Your task to perform on an android device: turn on sleep mode Image 0: 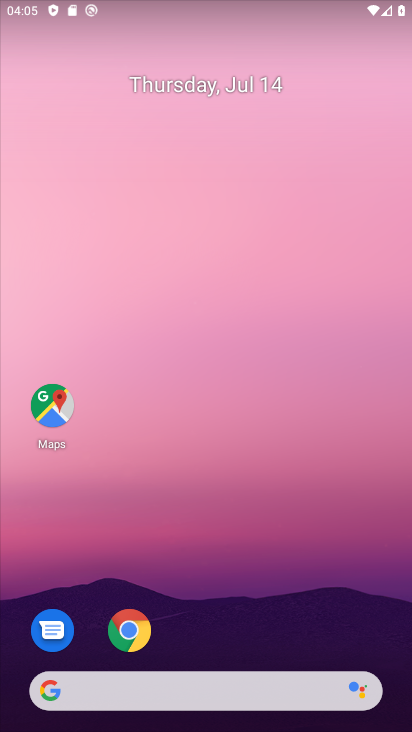
Step 0: press home button
Your task to perform on an android device: turn on sleep mode Image 1: 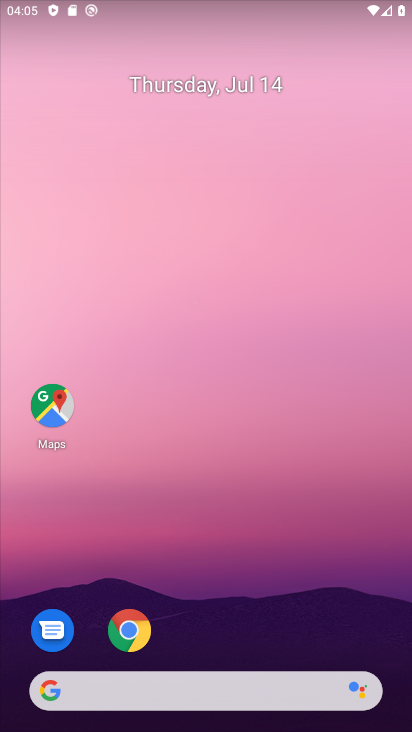
Step 1: press home button
Your task to perform on an android device: turn on sleep mode Image 2: 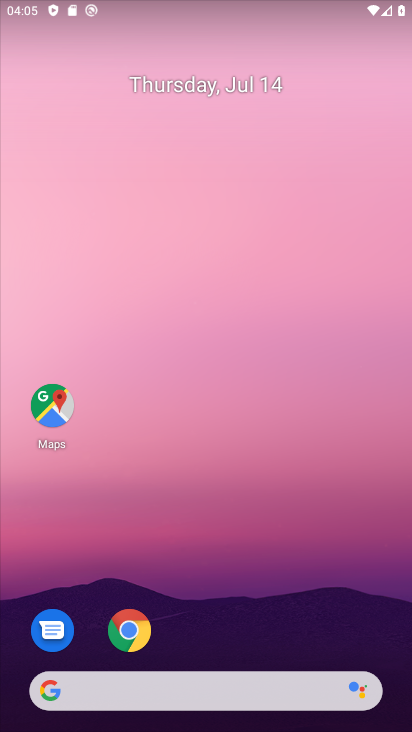
Step 2: drag from (231, 654) to (234, 0)
Your task to perform on an android device: turn on sleep mode Image 3: 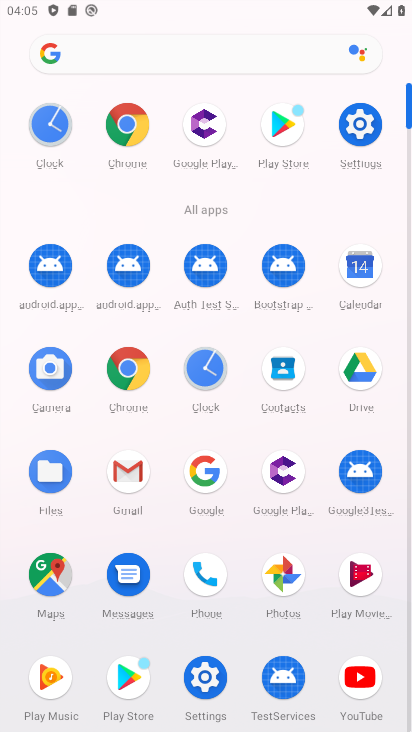
Step 3: click (358, 118)
Your task to perform on an android device: turn on sleep mode Image 4: 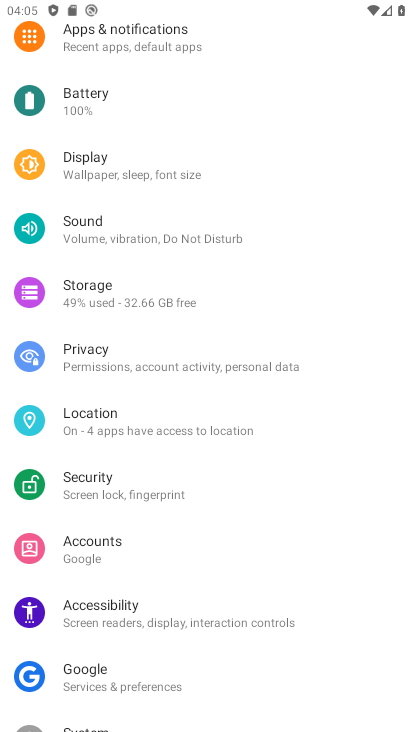
Step 4: click (104, 150)
Your task to perform on an android device: turn on sleep mode Image 5: 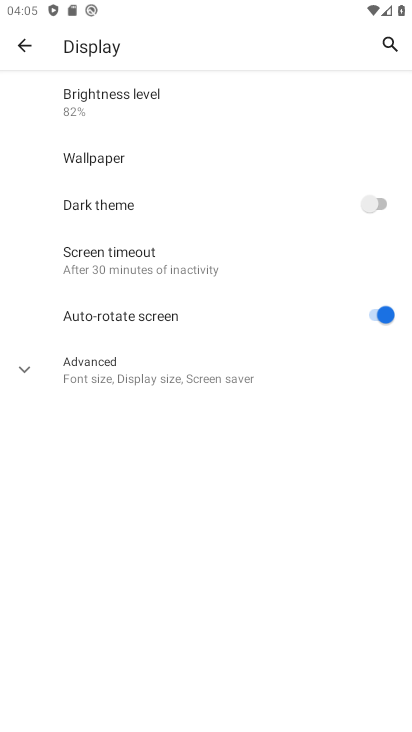
Step 5: click (27, 363)
Your task to perform on an android device: turn on sleep mode Image 6: 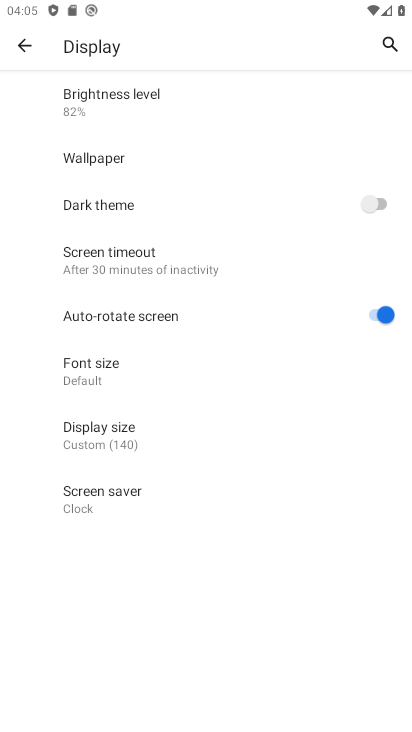
Step 6: task complete